Your task to perform on an android device: open app "Google Find My Device" (install if not already installed) Image 0: 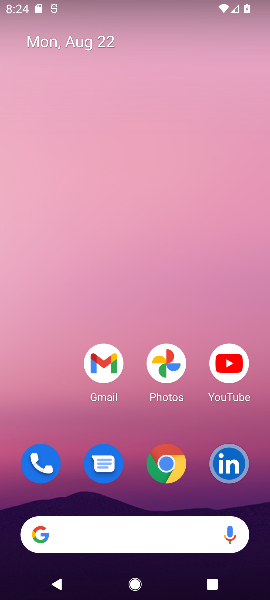
Step 0: drag from (130, 479) to (157, 3)
Your task to perform on an android device: open app "Google Find My Device" (install if not already installed) Image 1: 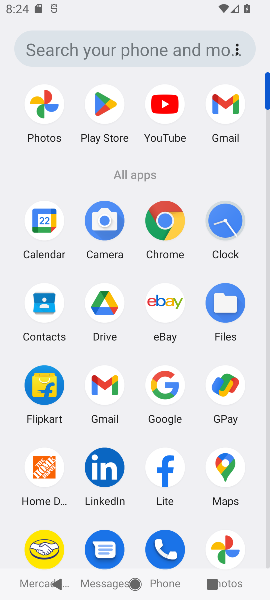
Step 1: click (99, 101)
Your task to perform on an android device: open app "Google Find My Device" (install if not already installed) Image 2: 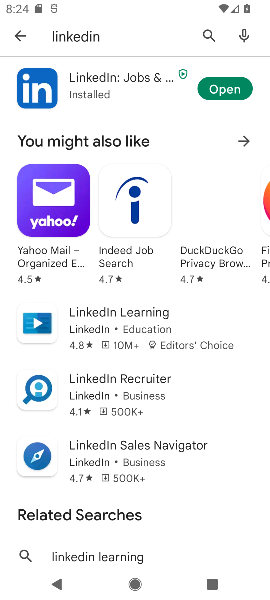
Step 2: click (15, 39)
Your task to perform on an android device: open app "Google Find My Device" (install if not already installed) Image 3: 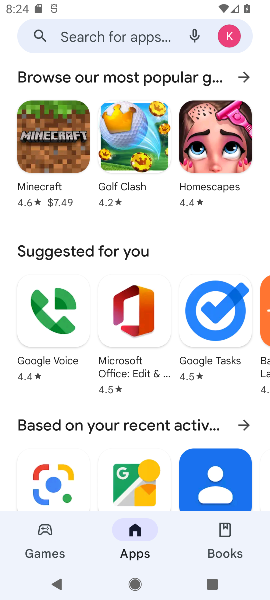
Step 3: click (76, 36)
Your task to perform on an android device: open app "Google Find My Device" (install if not already installed) Image 4: 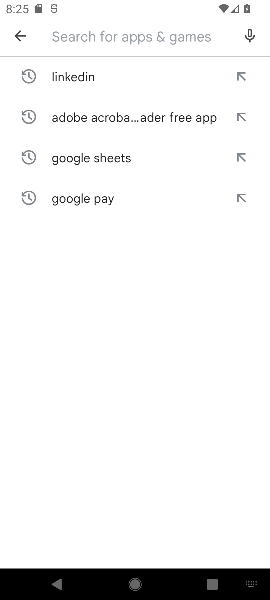
Step 4: type "Google Find My Device"
Your task to perform on an android device: open app "Google Find My Device" (install if not already installed) Image 5: 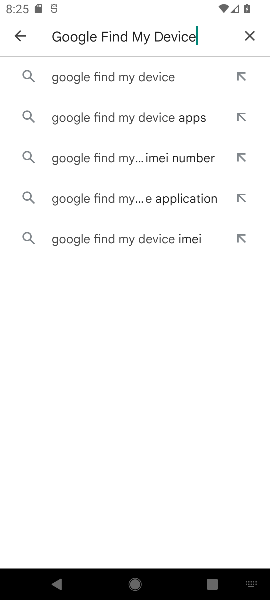
Step 5: click (161, 70)
Your task to perform on an android device: open app "Google Find My Device" (install if not already installed) Image 6: 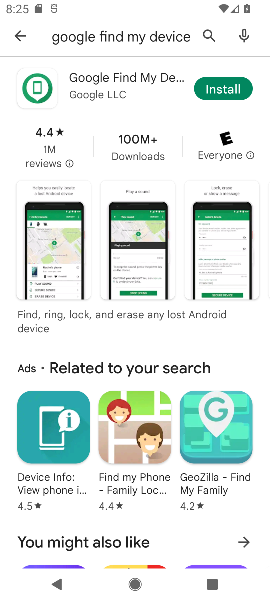
Step 6: click (211, 87)
Your task to perform on an android device: open app "Google Find My Device" (install if not already installed) Image 7: 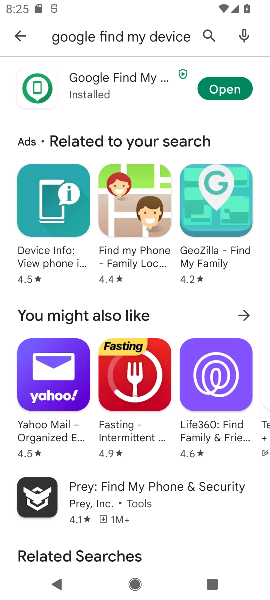
Step 7: click (211, 87)
Your task to perform on an android device: open app "Google Find My Device" (install if not already installed) Image 8: 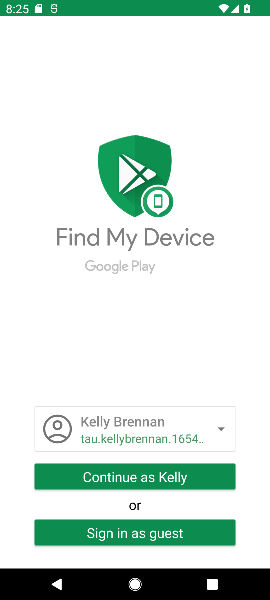
Step 8: task complete